Your task to perform on an android device: Turn off the flashlight Image 0: 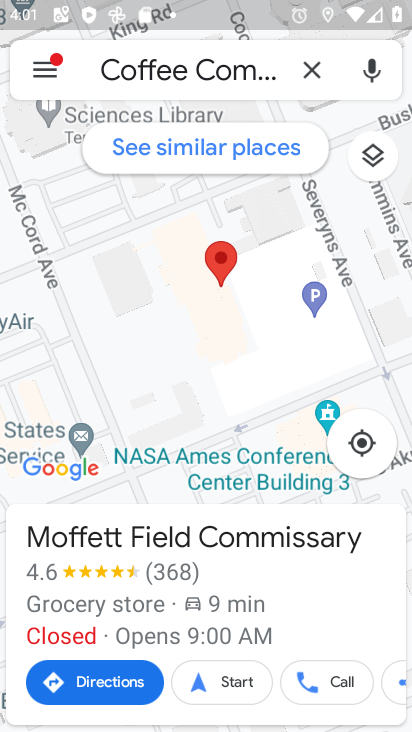
Step 0: press home button
Your task to perform on an android device: Turn off the flashlight Image 1: 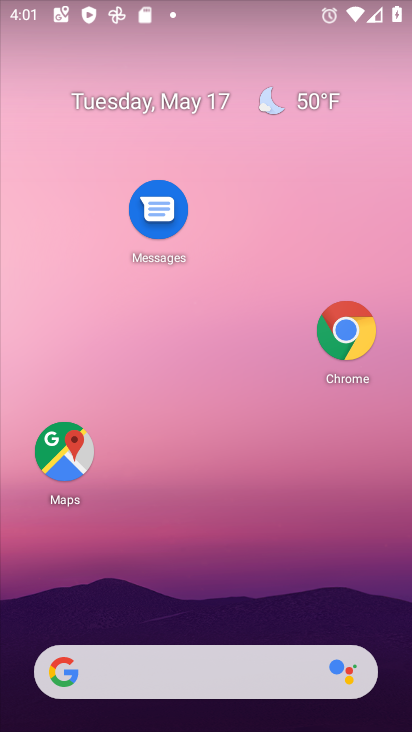
Step 1: drag from (224, 593) to (235, 154)
Your task to perform on an android device: Turn off the flashlight Image 2: 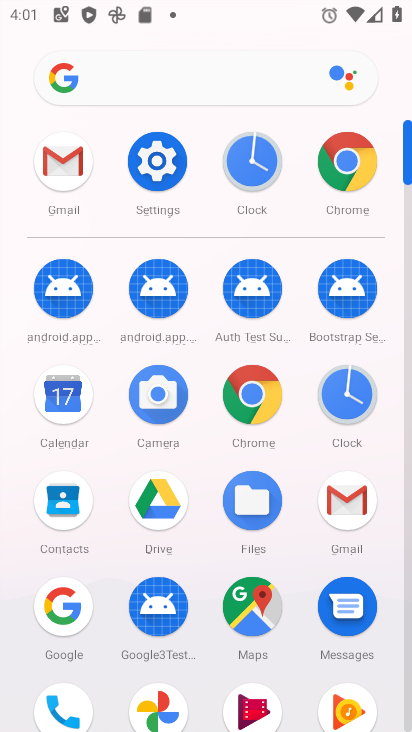
Step 2: click (162, 187)
Your task to perform on an android device: Turn off the flashlight Image 3: 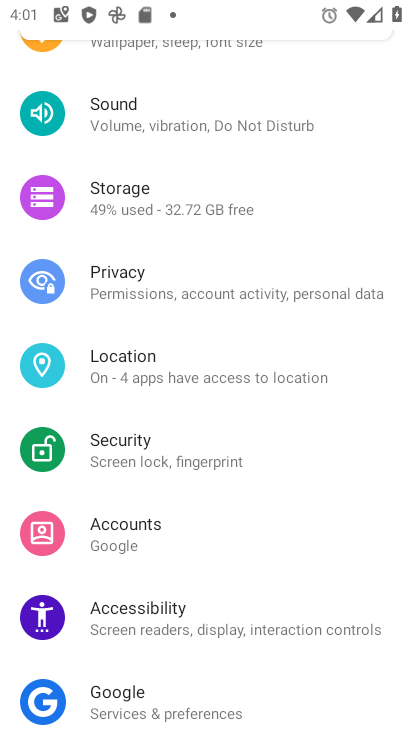
Step 3: task complete